Your task to perform on an android device: What is the capital of Canada? Image 0: 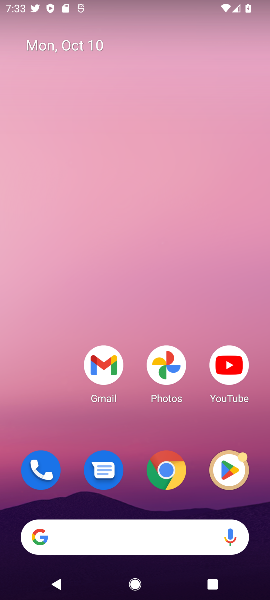
Step 0: click (164, 473)
Your task to perform on an android device: What is the capital of Canada? Image 1: 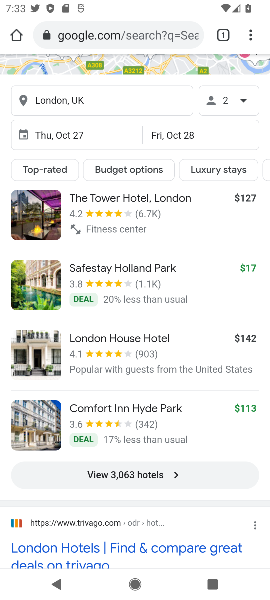
Step 1: click (139, 34)
Your task to perform on an android device: What is the capital of Canada? Image 2: 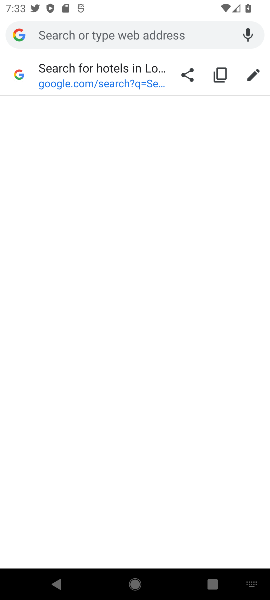
Step 2: type "What is the capital of Canada?"
Your task to perform on an android device: What is the capital of Canada? Image 3: 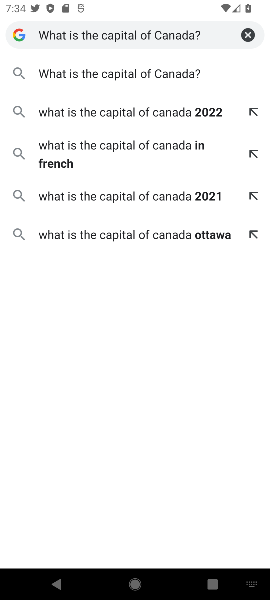
Step 3: click (131, 69)
Your task to perform on an android device: What is the capital of Canada? Image 4: 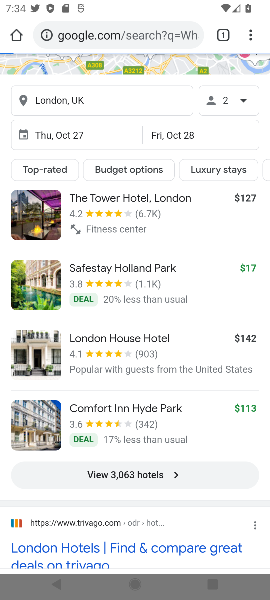
Step 4: click (131, 69)
Your task to perform on an android device: What is the capital of Canada? Image 5: 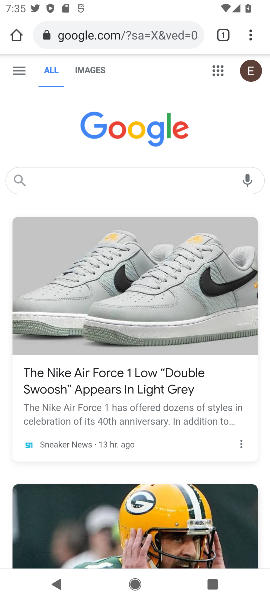
Step 5: type "What is the capital of Canada?"
Your task to perform on an android device: What is the capital of Canada? Image 6: 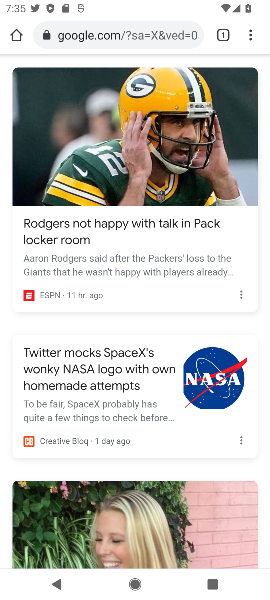
Step 6: click (147, 40)
Your task to perform on an android device: What is the capital of Canada? Image 7: 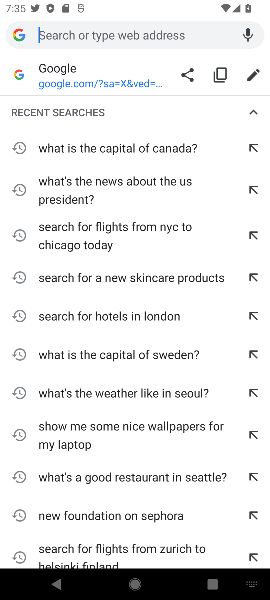
Step 7: click (186, 148)
Your task to perform on an android device: What is the capital of Canada? Image 8: 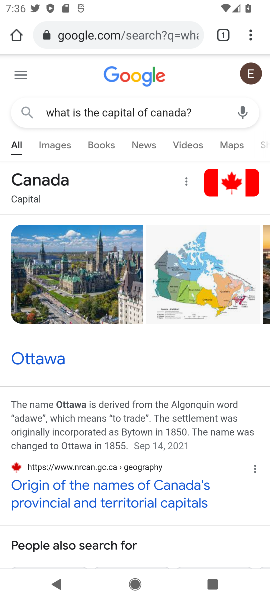
Step 8: task complete